Your task to perform on an android device: check storage Image 0: 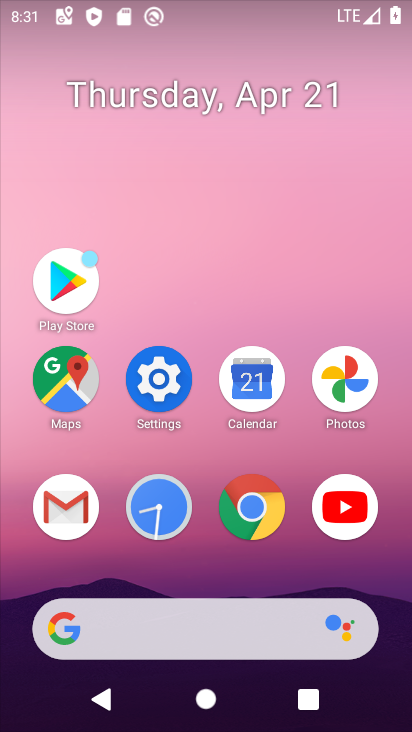
Step 0: click (155, 384)
Your task to perform on an android device: check storage Image 1: 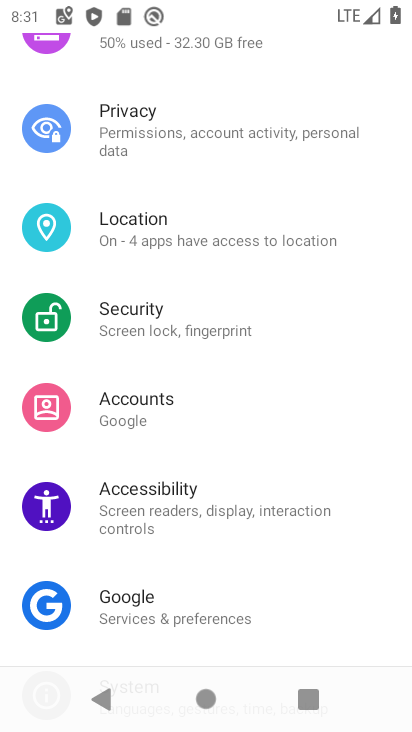
Step 1: drag from (324, 201) to (316, 421)
Your task to perform on an android device: check storage Image 2: 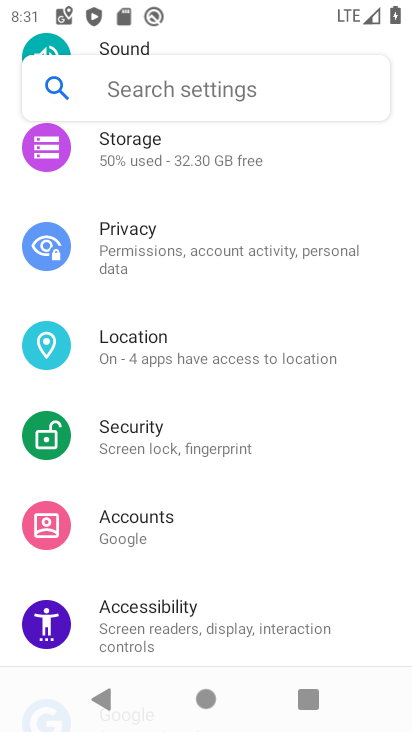
Step 2: click (118, 149)
Your task to perform on an android device: check storage Image 3: 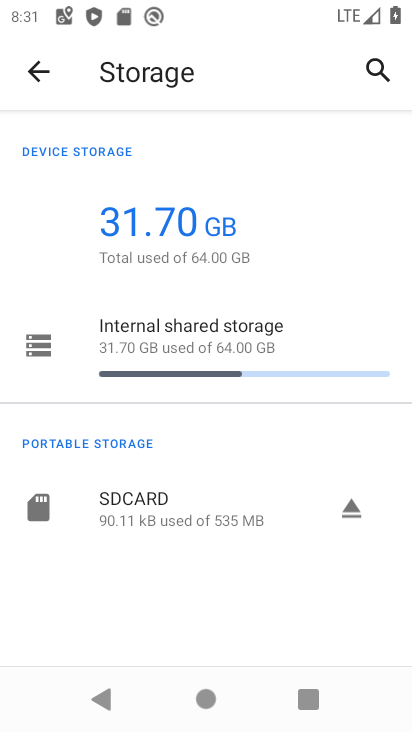
Step 3: task complete